Your task to perform on an android device: clear all cookies in the chrome app Image 0: 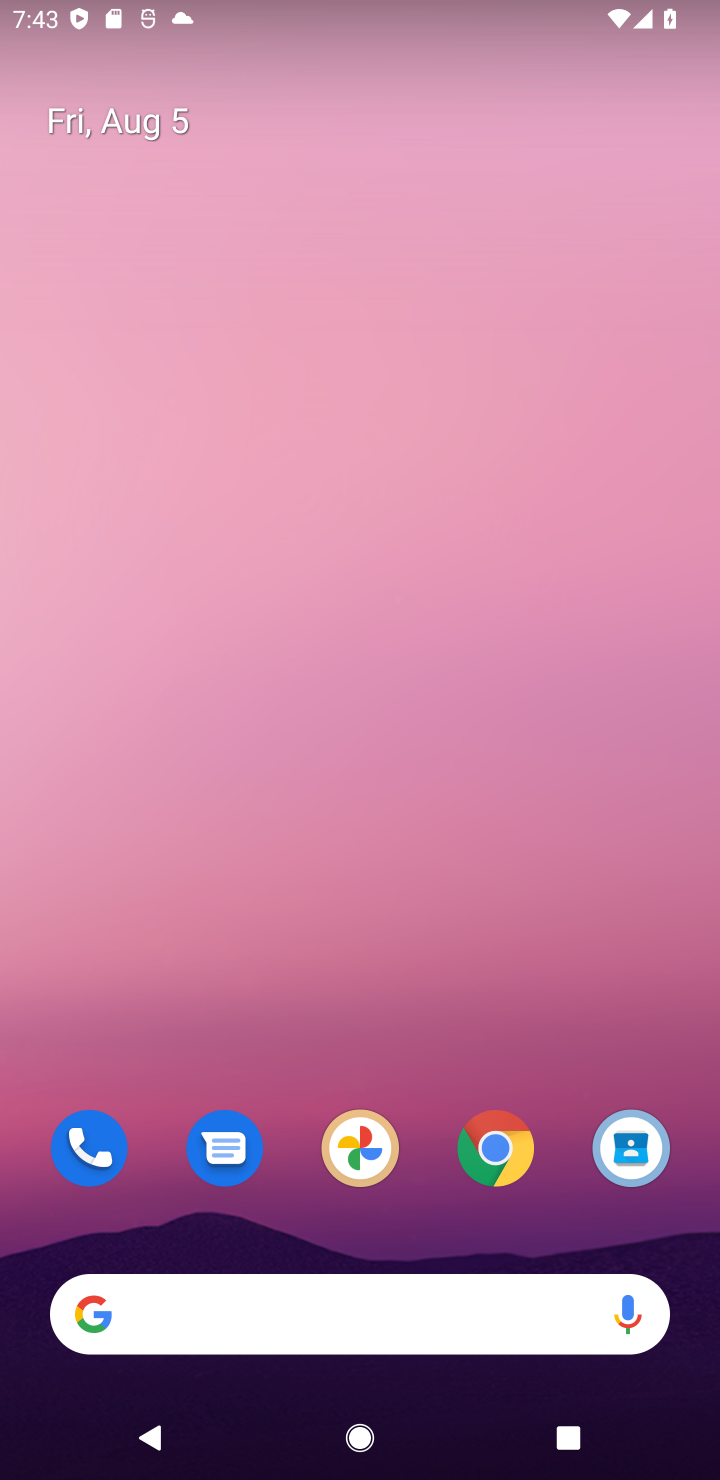
Step 0: click (519, 1162)
Your task to perform on an android device: clear all cookies in the chrome app Image 1: 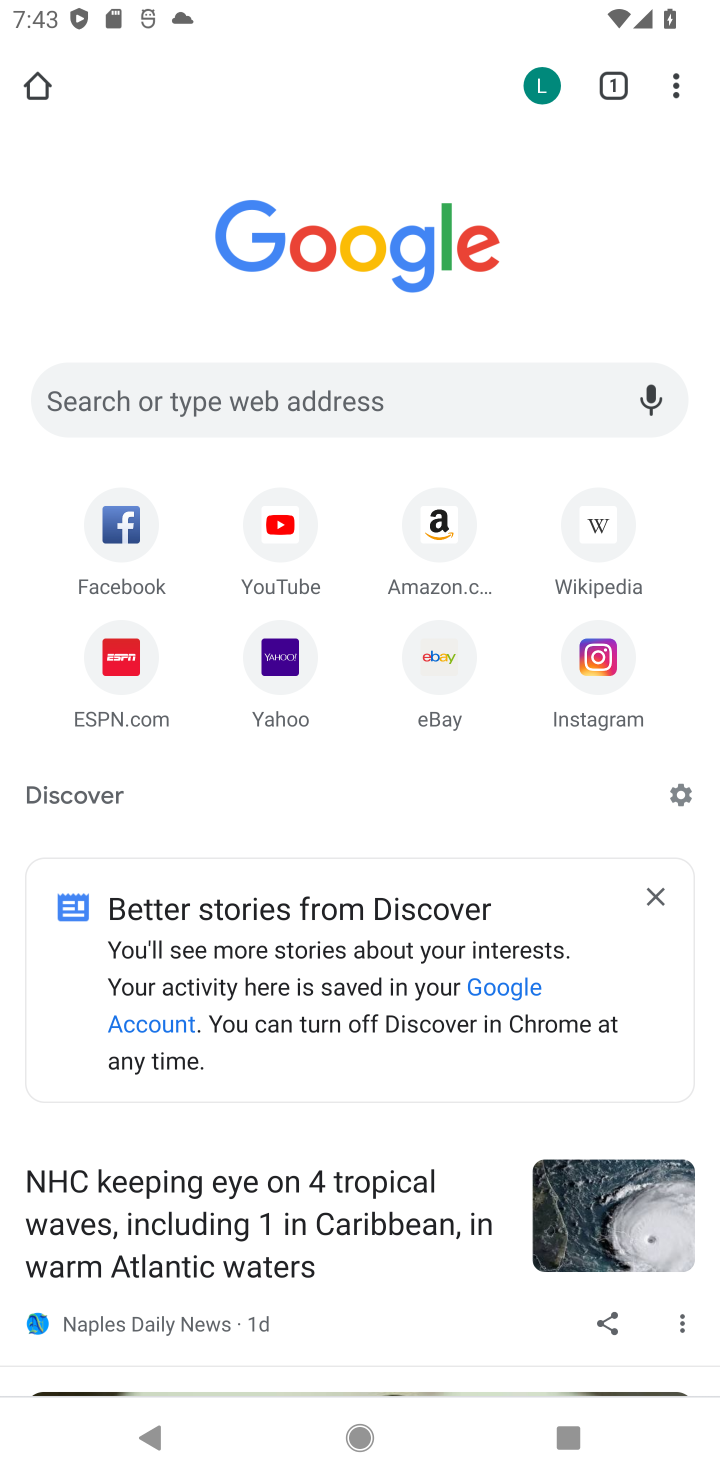
Step 1: task complete